Your task to perform on an android device: toggle pop-ups in chrome Image 0: 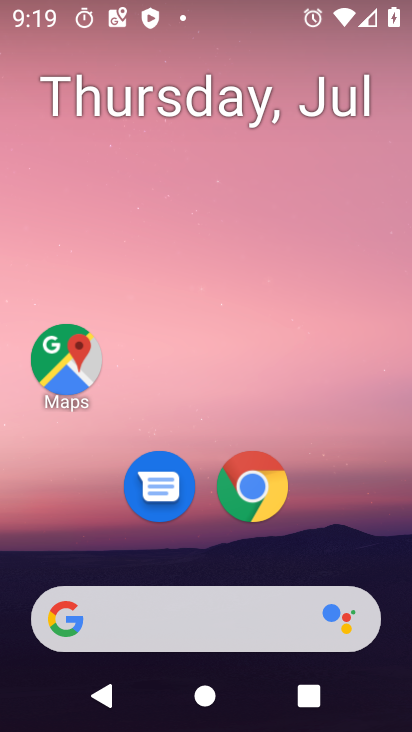
Step 0: drag from (147, 660) to (195, 286)
Your task to perform on an android device: toggle pop-ups in chrome Image 1: 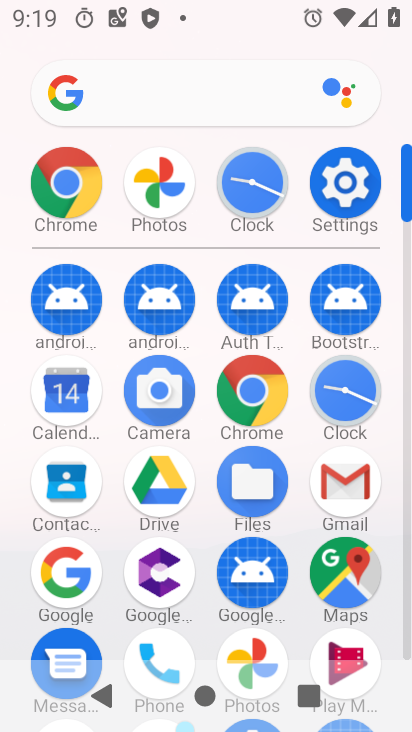
Step 1: click (269, 399)
Your task to perform on an android device: toggle pop-ups in chrome Image 2: 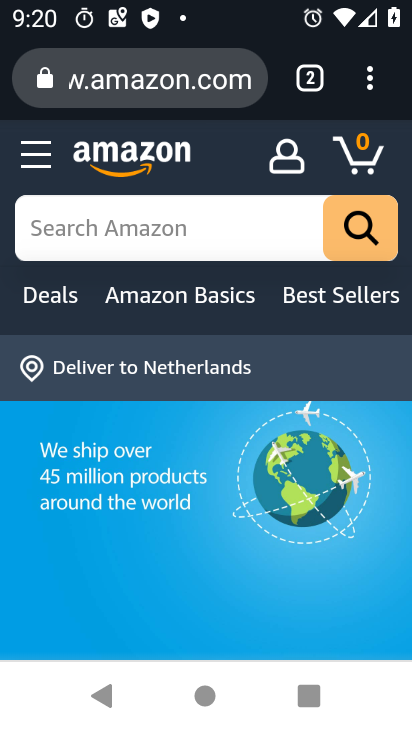
Step 2: click (371, 89)
Your task to perform on an android device: toggle pop-ups in chrome Image 3: 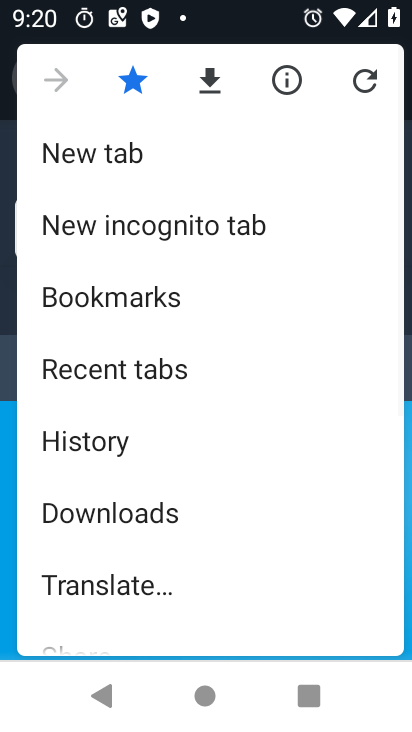
Step 3: drag from (189, 544) to (223, 145)
Your task to perform on an android device: toggle pop-ups in chrome Image 4: 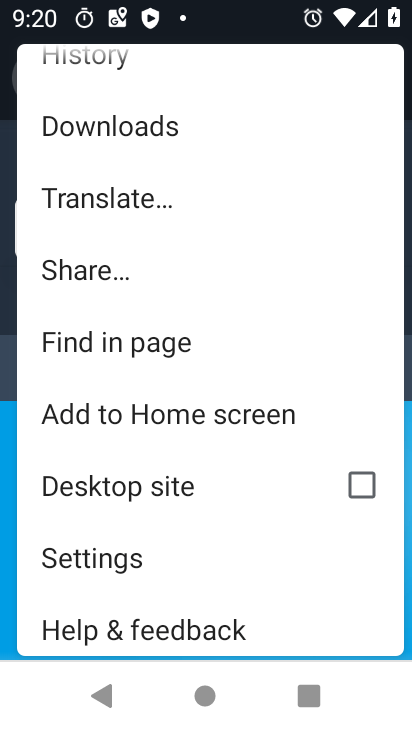
Step 4: click (142, 559)
Your task to perform on an android device: toggle pop-ups in chrome Image 5: 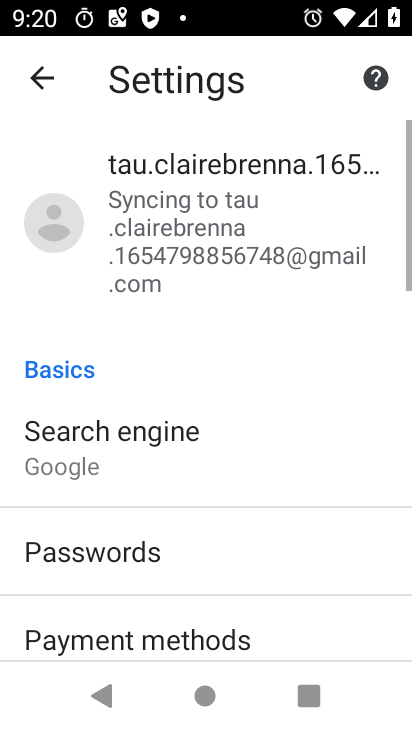
Step 5: drag from (156, 541) to (179, 210)
Your task to perform on an android device: toggle pop-ups in chrome Image 6: 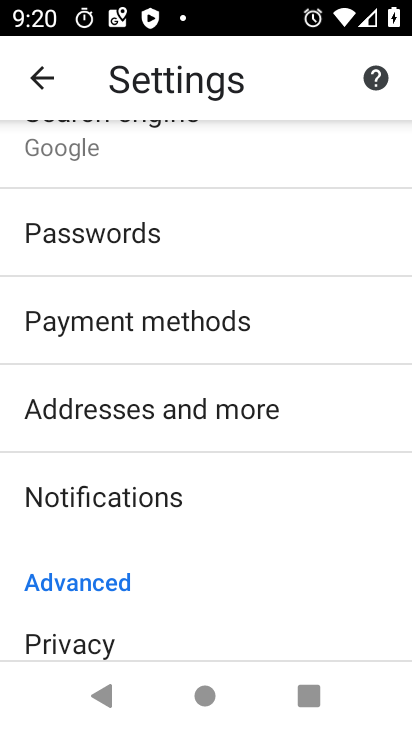
Step 6: drag from (209, 572) to (238, 267)
Your task to perform on an android device: toggle pop-ups in chrome Image 7: 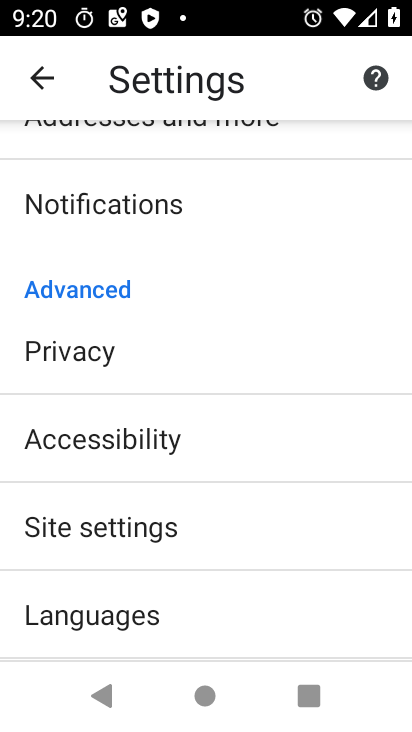
Step 7: drag from (199, 594) to (198, 383)
Your task to perform on an android device: toggle pop-ups in chrome Image 8: 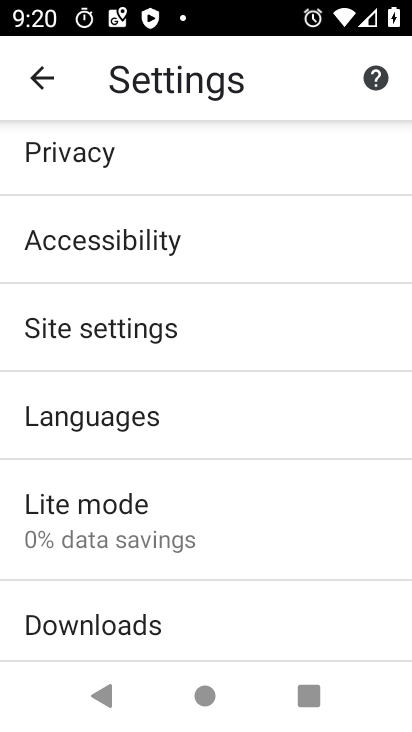
Step 8: click (131, 339)
Your task to perform on an android device: toggle pop-ups in chrome Image 9: 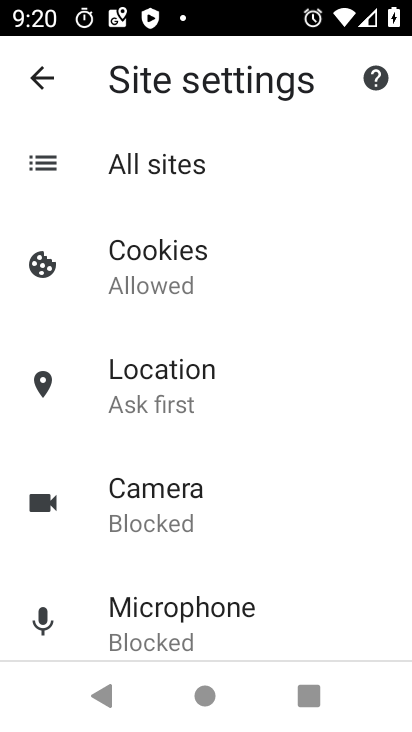
Step 9: drag from (197, 481) to (207, 173)
Your task to perform on an android device: toggle pop-ups in chrome Image 10: 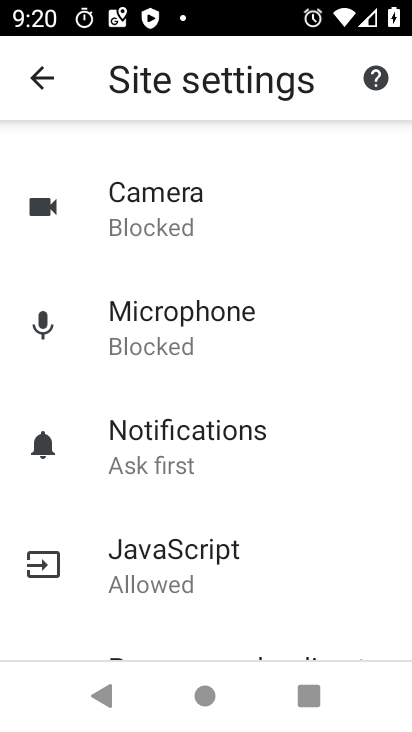
Step 10: drag from (168, 564) to (194, 214)
Your task to perform on an android device: toggle pop-ups in chrome Image 11: 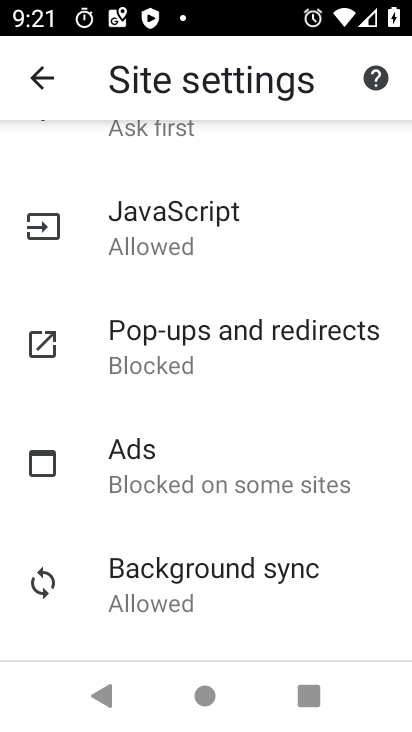
Step 11: click (196, 366)
Your task to perform on an android device: toggle pop-ups in chrome Image 12: 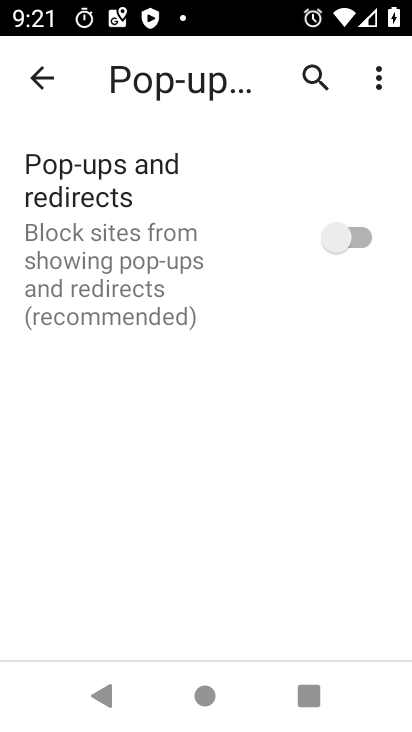
Step 12: click (348, 230)
Your task to perform on an android device: toggle pop-ups in chrome Image 13: 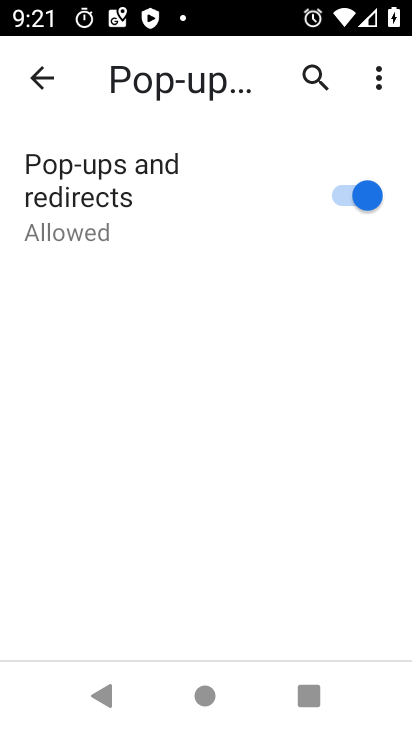
Step 13: task complete